Your task to perform on an android device: View the shopping cart on walmart.com. Add bose soundlink to the cart on walmart.com Image 0: 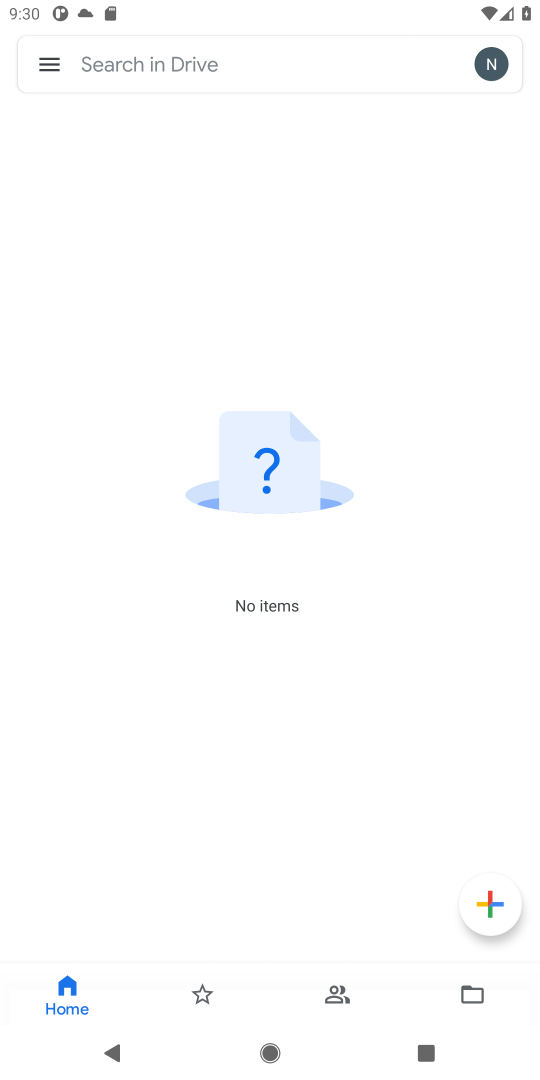
Step 0: press home button
Your task to perform on an android device: View the shopping cart on walmart.com. Add bose soundlink to the cart on walmart.com Image 1: 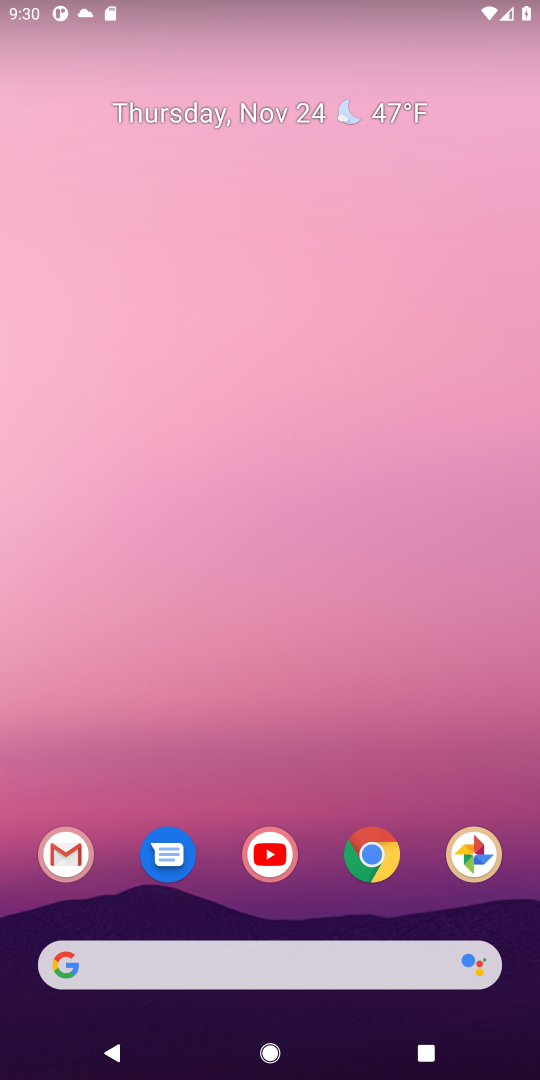
Step 1: click (377, 853)
Your task to perform on an android device: View the shopping cart on walmart.com. Add bose soundlink to the cart on walmart.com Image 2: 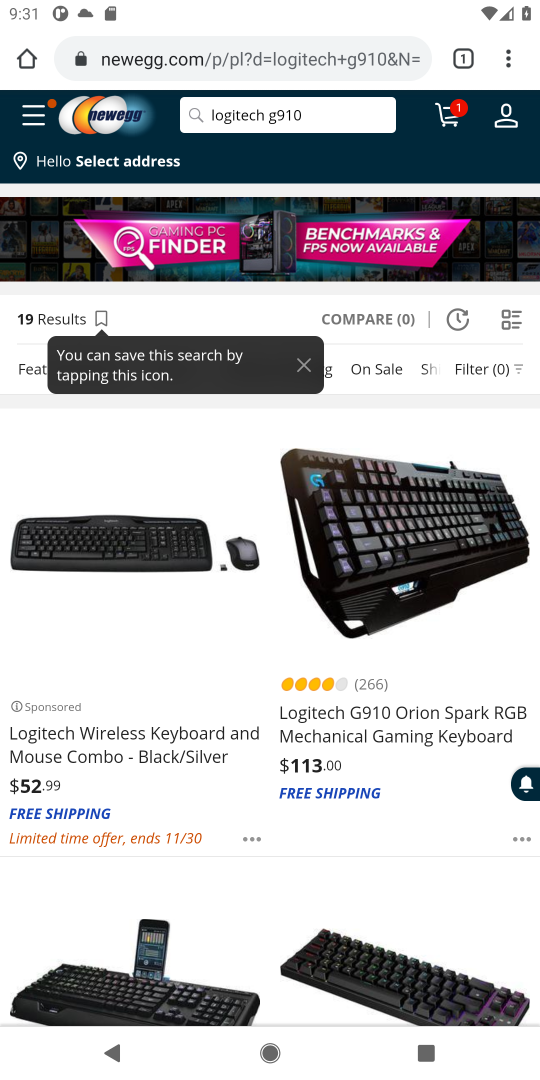
Step 2: click (342, 62)
Your task to perform on an android device: View the shopping cart on walmart.com. Add bose soundlink to the cart on walmart.com Image 3: 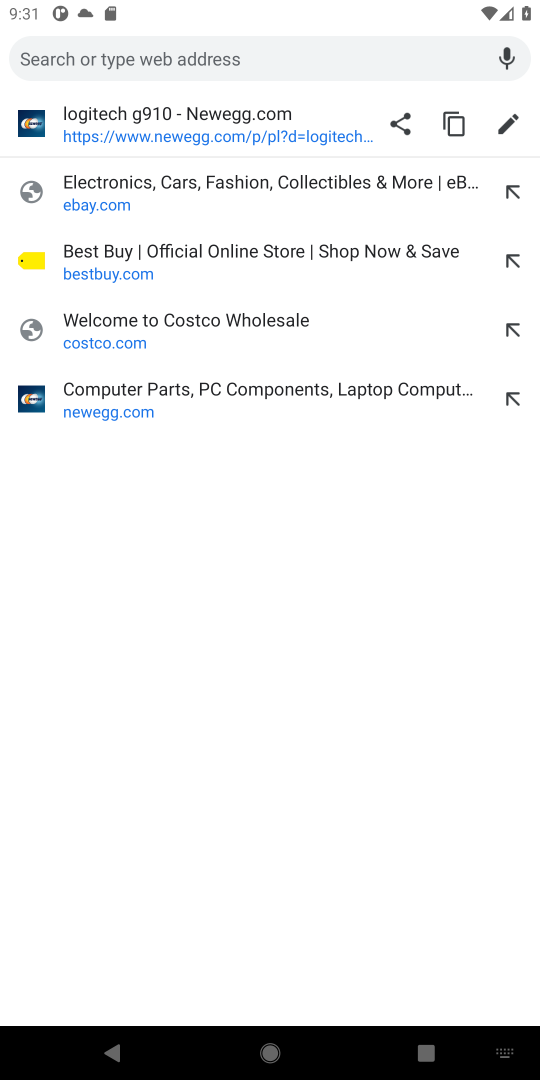
Step 3: type "walmart.com"
Your task to perform on an android device: View the shopping cart on walmart.com. Add bose soundlink to the cart on walmart.com Image 4: 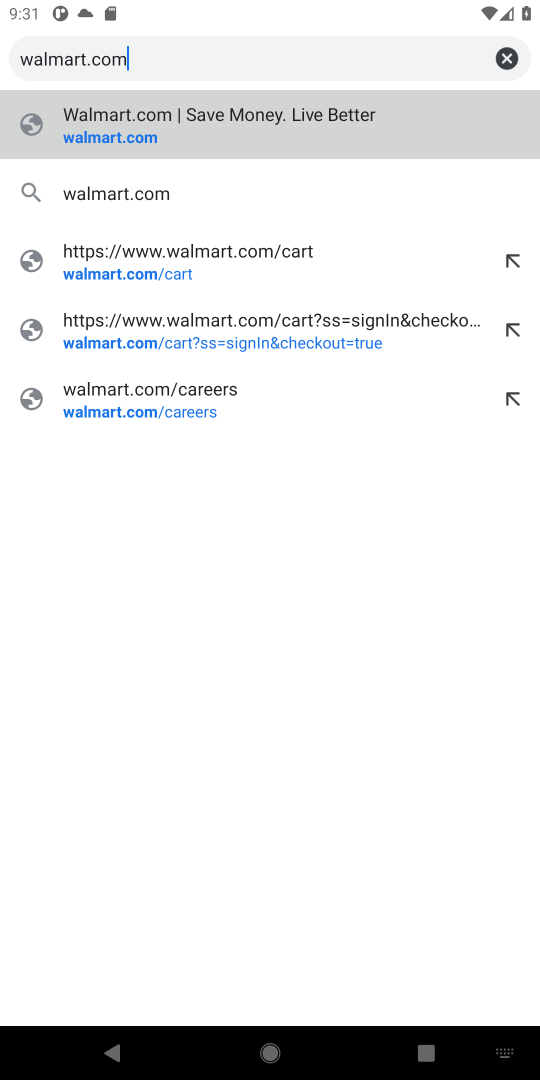
Step 4: click (97, 146)
Your task to perform on an android device: View the shopping cart on walmart.com. Add bose soundlink to the cart on walmart.com Image 5: 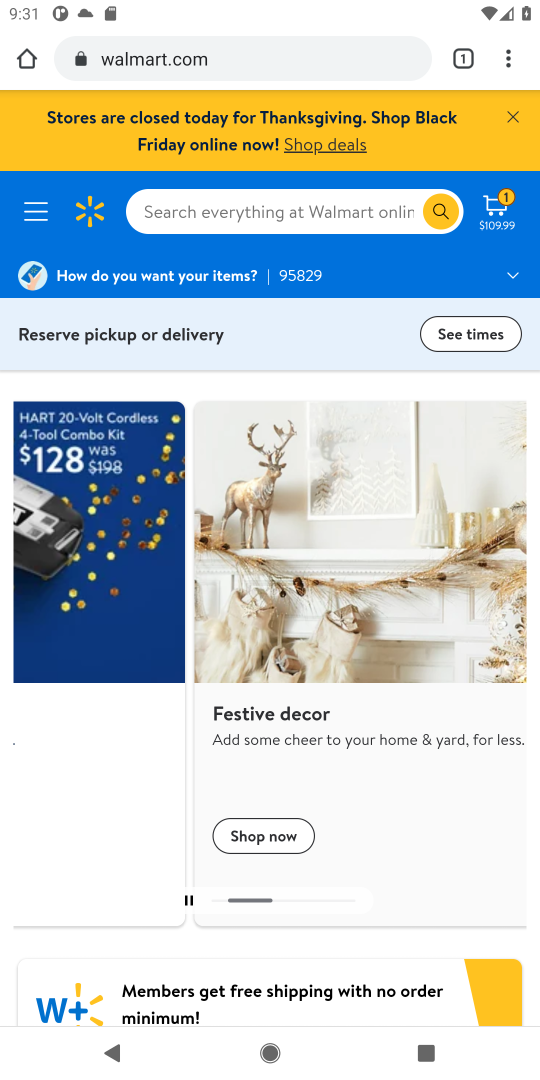
Step 5: click (516, 223)
Your task to perform on an android device: View the shopping cart on walmart.com. Add bose soundlink to the cart on walmart.com Image 6: 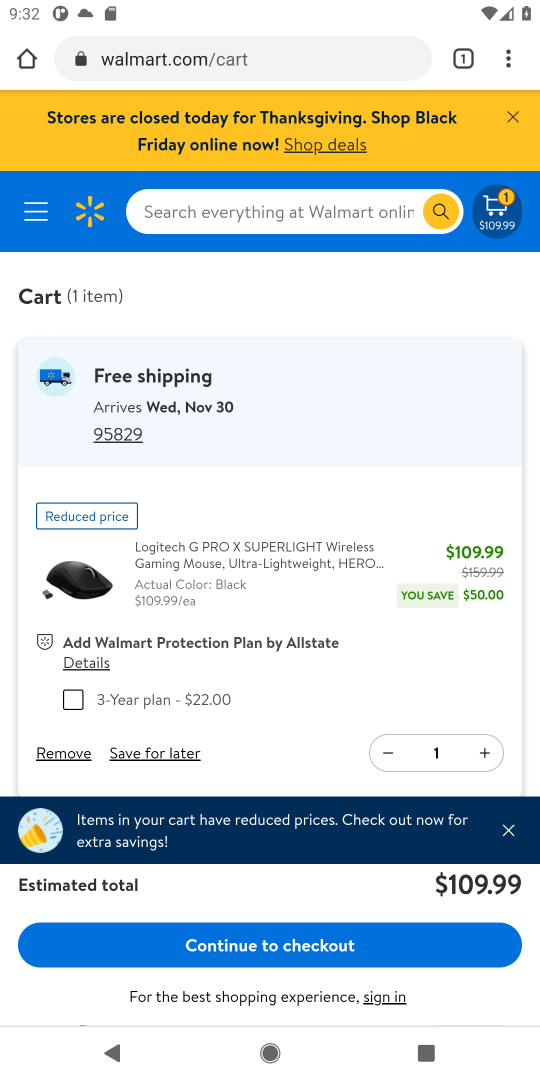
Step 6: drag from (295, 708) to (300, 493)
Your task to perform on an android device: View the shopping cart on walmart.com. Add bose soundlink to the cart on walmart.com Image 7: 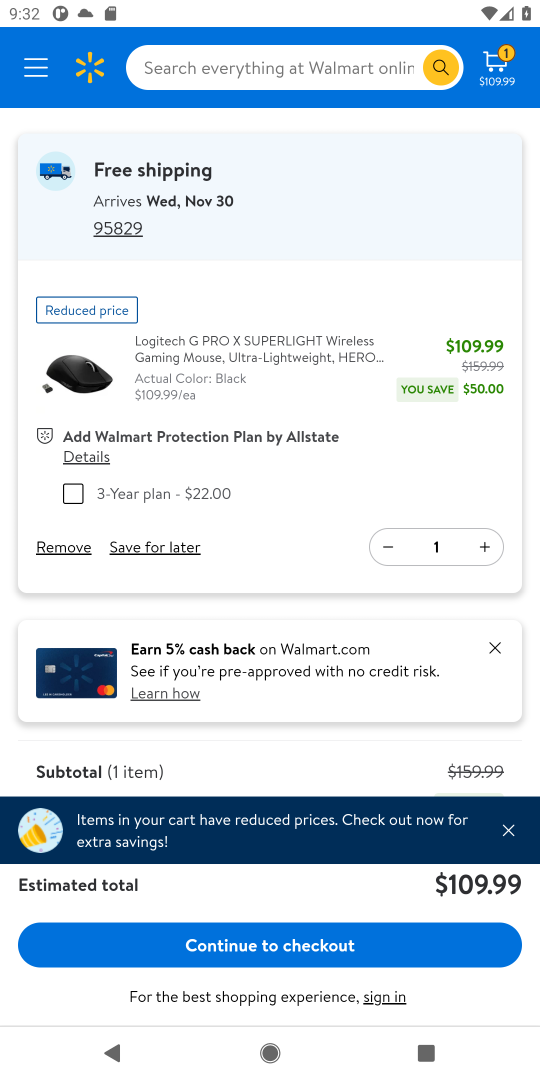
Step 7: click (217, 79)
Your task to perform on an android device: View the shopping cart on walmart.com. Add bose soundlink to the cart on walmart.com Image 8: 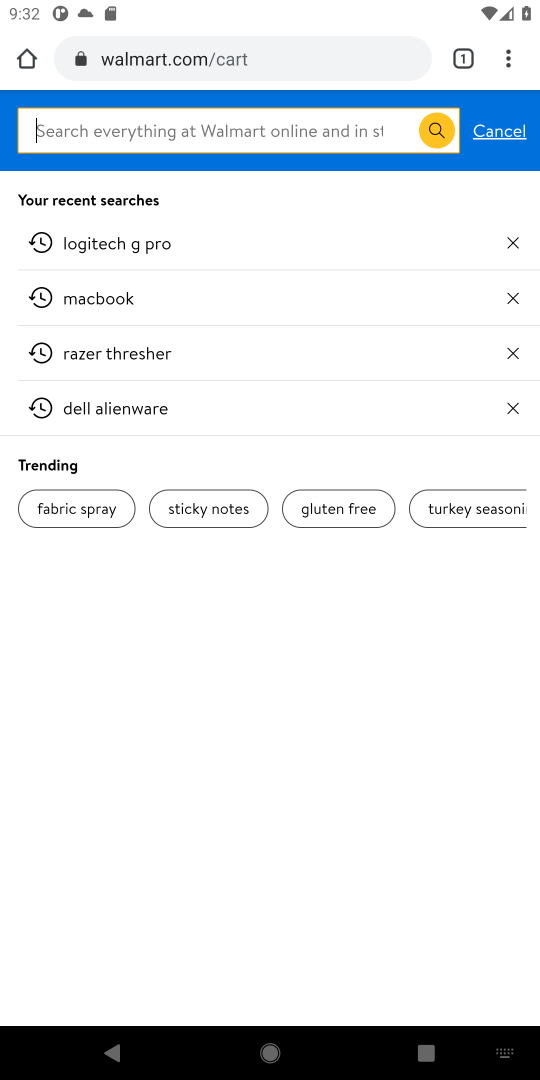
Step 8: type "bose soundlink"
Your task to perform on an android device: View the shopping cart on walmart.com. Add bose soundlink to the cart on walmart.com Image 9: 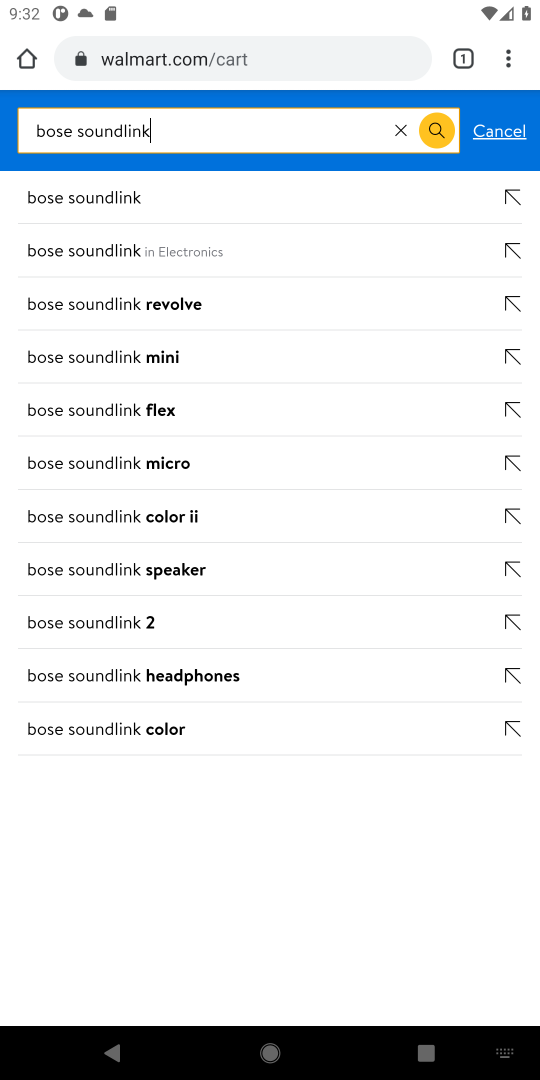
Step 9: click (102, 204)
Your task to perform on an android device: View the shopping cart on walmart.com. Add bose soundlink to the cart on walmart.com Image 10: 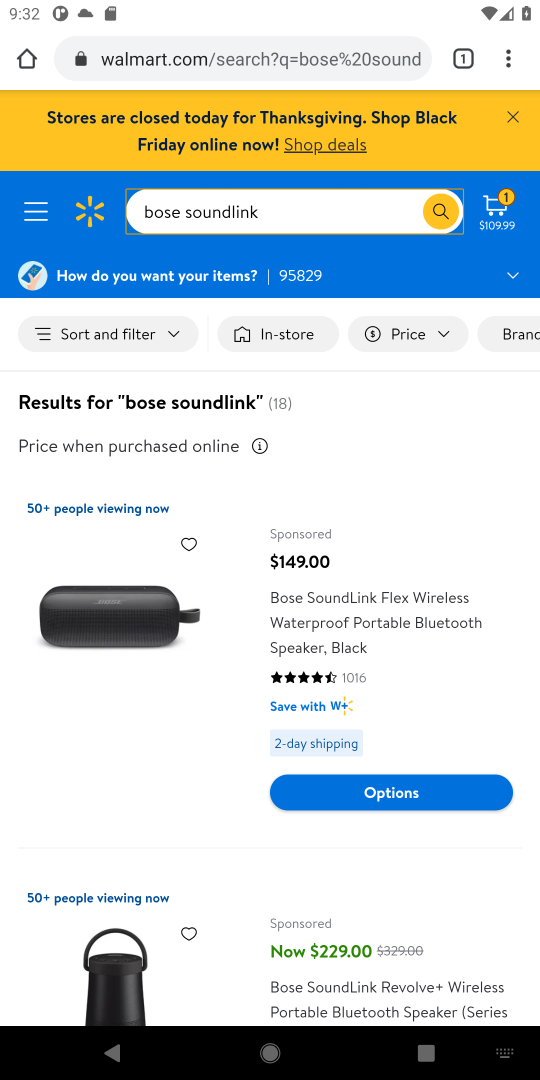
Step 10: click (143, 695)
Your task to perform on an android device: View the shopping cart on walmart.com. Add bose soundlink to the cart on walmart.com Image 11: 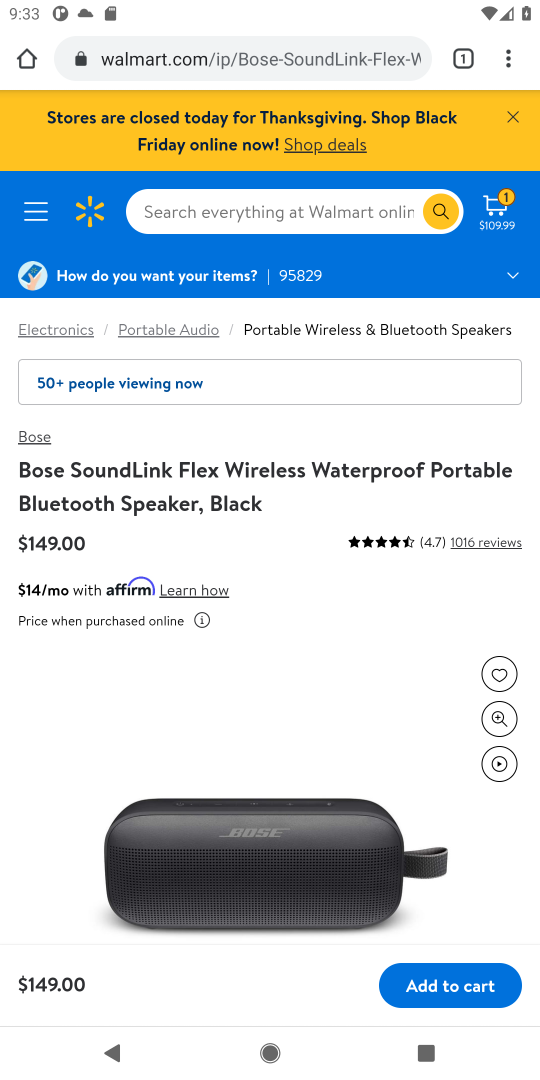
Step 11: click (435, 995)
Your task to perform on an android device: View the shopping cart on walmart.com. Add bose soundlink to the cart on walmart.com Image 12: 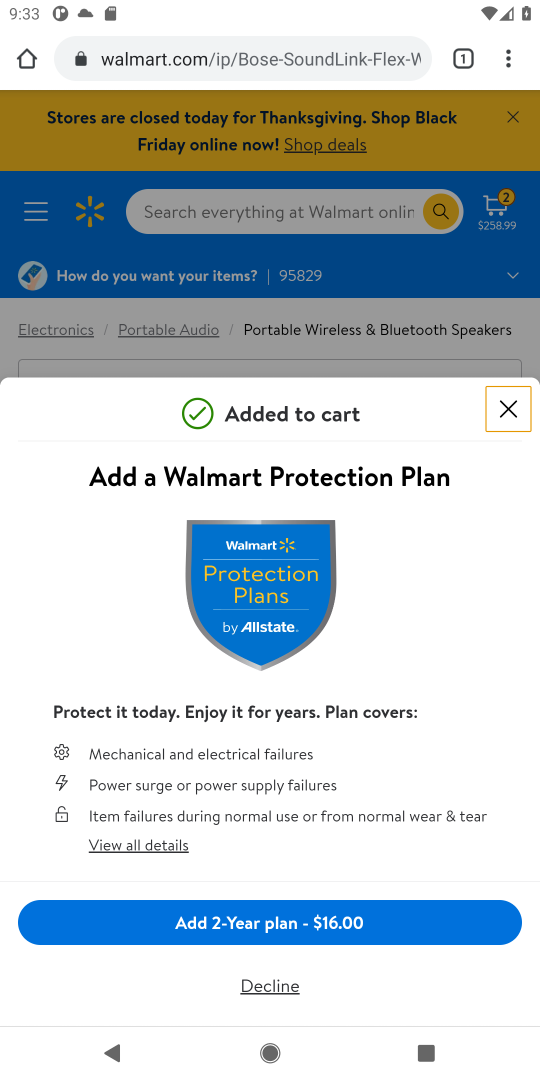
Step 12: task complete